Your task to perform on an android device: Show the shopping cart on walmart. Search for macbook pro on walmart, select the first entry, and add it to the cart. Image 0: 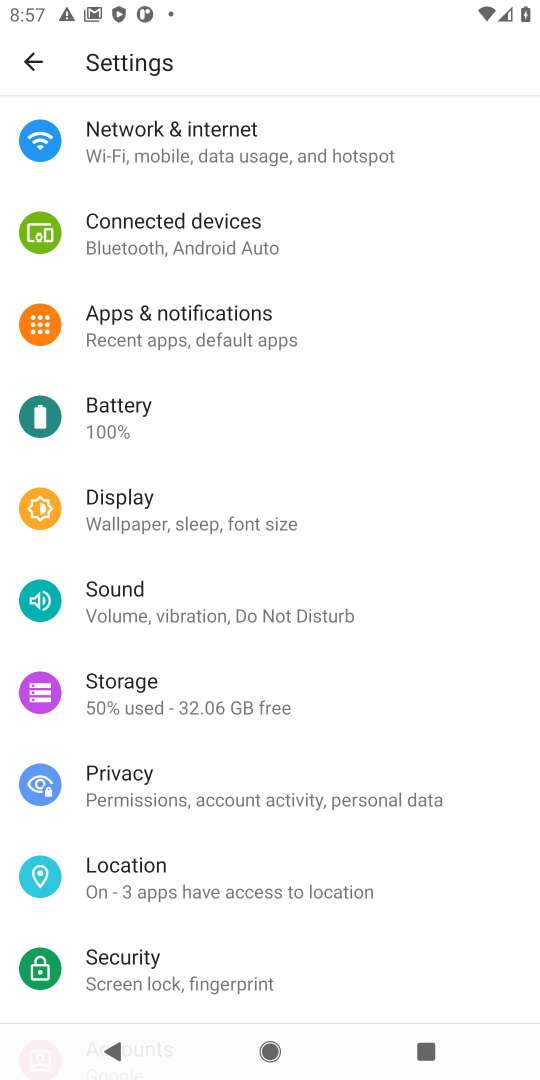
Step 0: press home button
Your task to perform on an android device: Show the shopping cart on walmart. Search for macbook pro on walmart, select the first entry, and add it to the cart. Image 1: 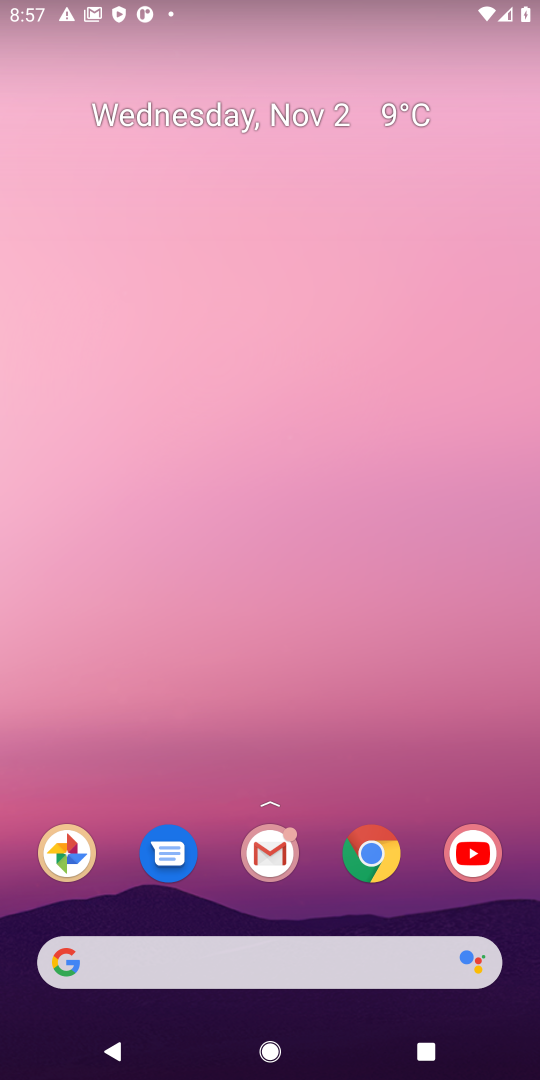
Step 1: click (365, 859)
Your task to perform on an android device: Show the shopping cart on walmart. Search for macbook pro on walmart, select the first entry, and add it to the cart. Image 2: 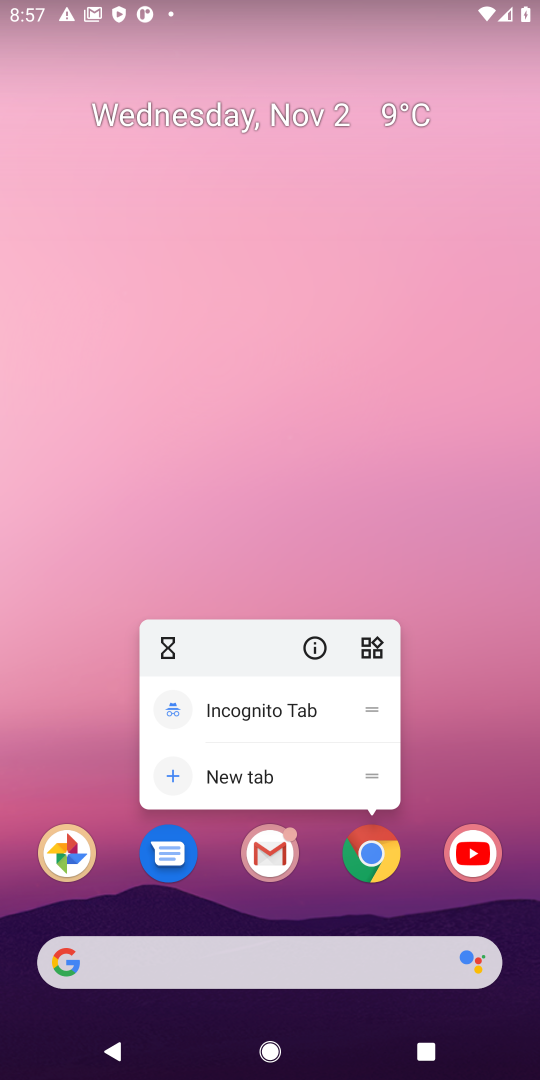
Step 2: click (363, 854)
Your task to perform on an android device: Show the shopping cart on walmart. Search for macbook pro on walmart, select the first entry, and add it to the cart. Image 3: 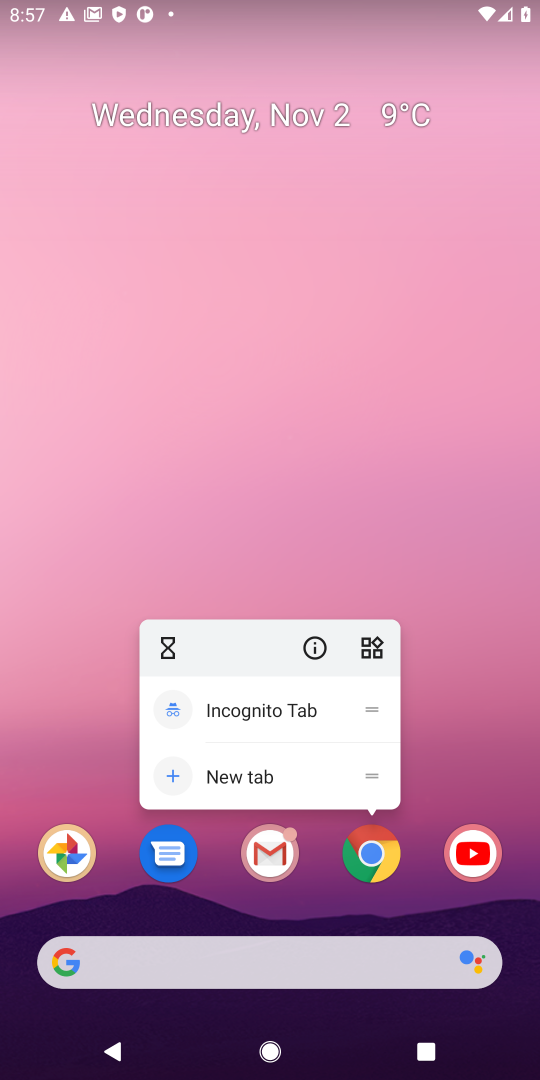
Step 3: click (389, 855)
Your task to perform on an android device: Show the shopping cart on walmart. Search for macbook pro on walmart, select the first entry, and add it to the cart. Image 4: 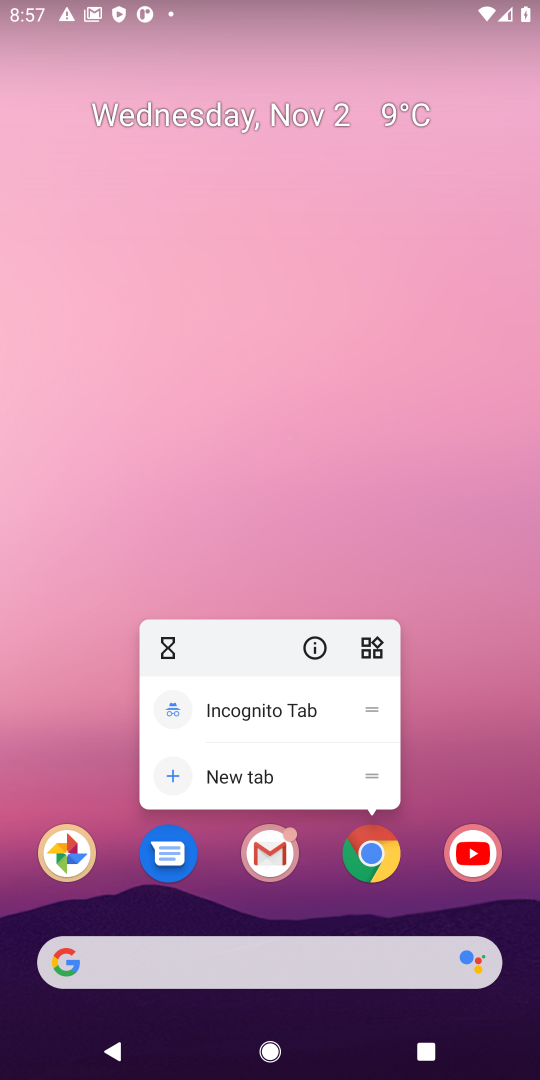
Step 4: click (367, 849)
Your task to perform on an android device: Show the shopping cart on walmart. Search for macbook pro on walmart, select the first entry, and add it to the cart. Image 5: 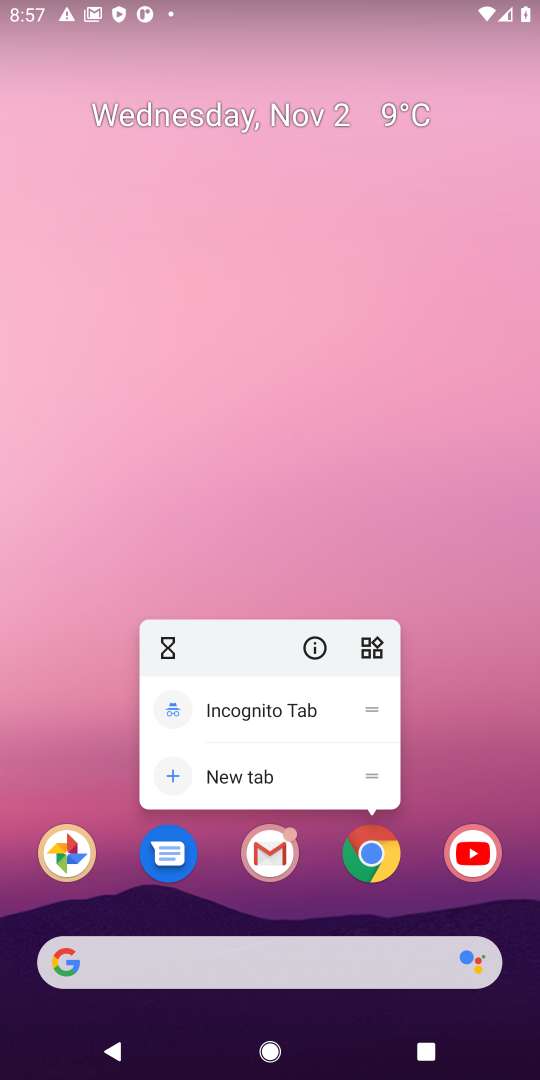
Step 5: click (367, 852)
Your task to perform on an android device: Show the shopping cart on walmart. Search for macbook pro on walmart, select the first entry, and add it to the cart. Image 6: 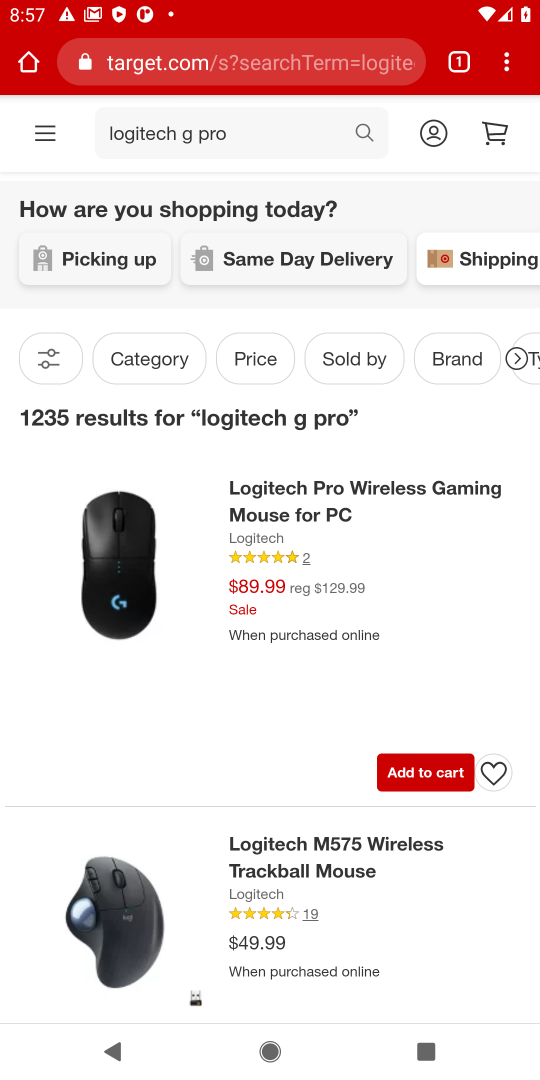
Step 6: click (227, 62)
Your task to perform on an android device: Show the shopping cart on walmart. Search for macbook pro on walmart, select the first entry, and add it to the cart. Image 7: 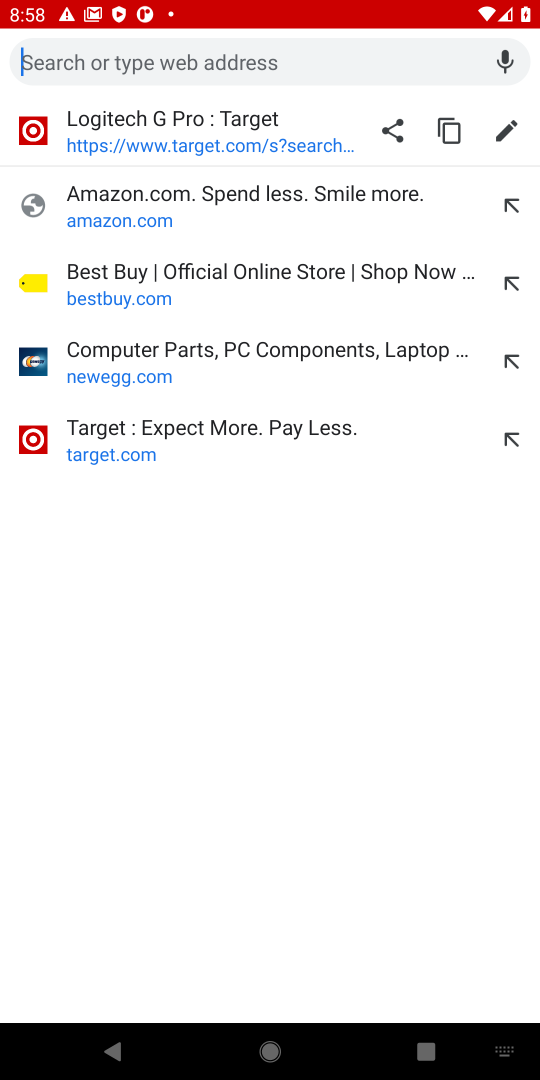
Step 7: type "walmart"
Your task to perform on an android device: Show the shopping cart on walmart. Search for macbook pro on walmart, select the first entry, and add it to the cart. Image 8: 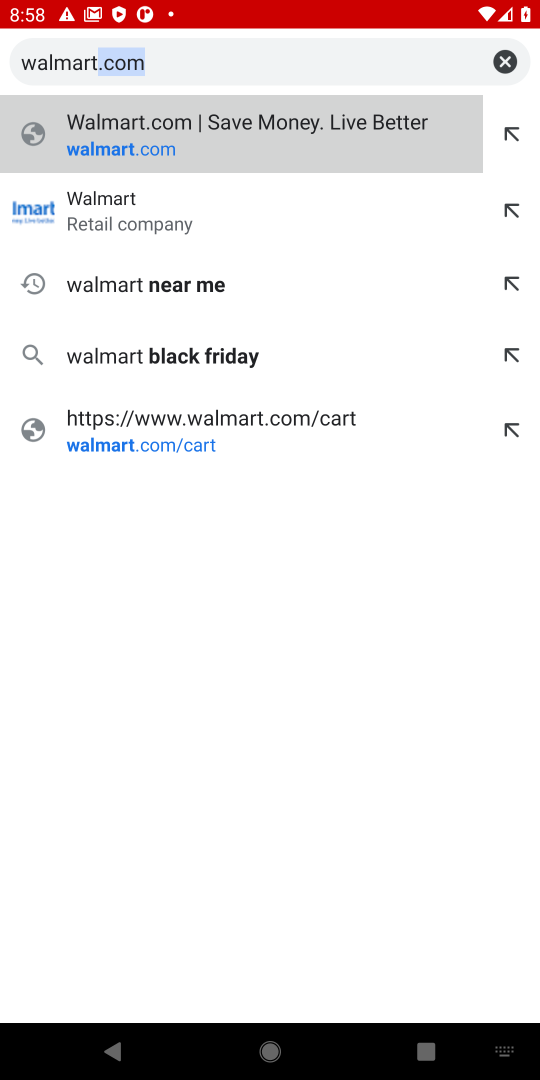
Step 8: press enter
Your task to perform on an android device: Show the shopping cart on walmart. Search for macbook pro on walmart, select the first entry, and add it to the cart. Image 9: 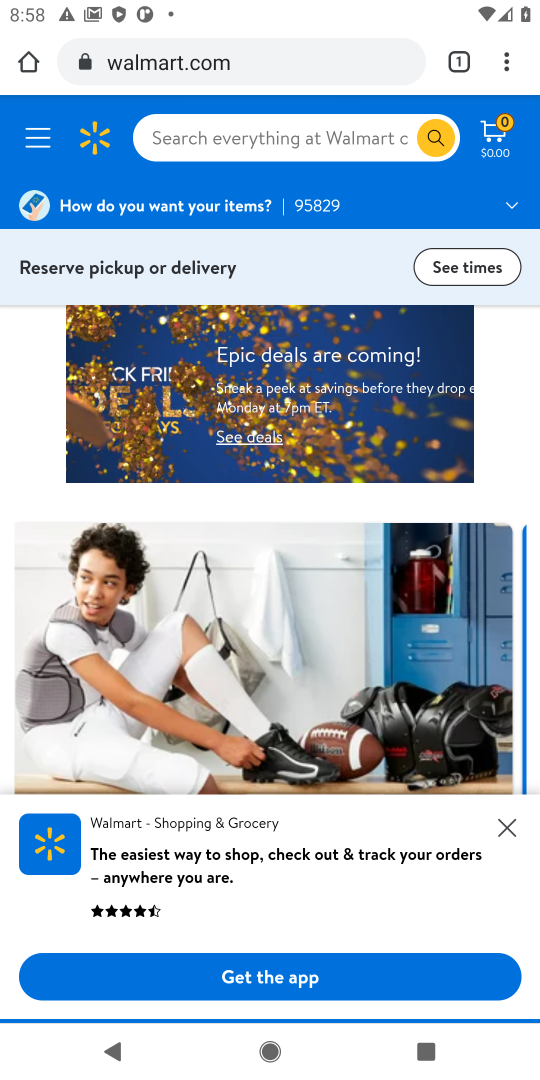
Step 9: click (240, 138)
Your task to perform on an android device: Show the shopping cart on walmart. Search for macbook pro on walmart, select the first entry, and add it to the cart. Image 10: 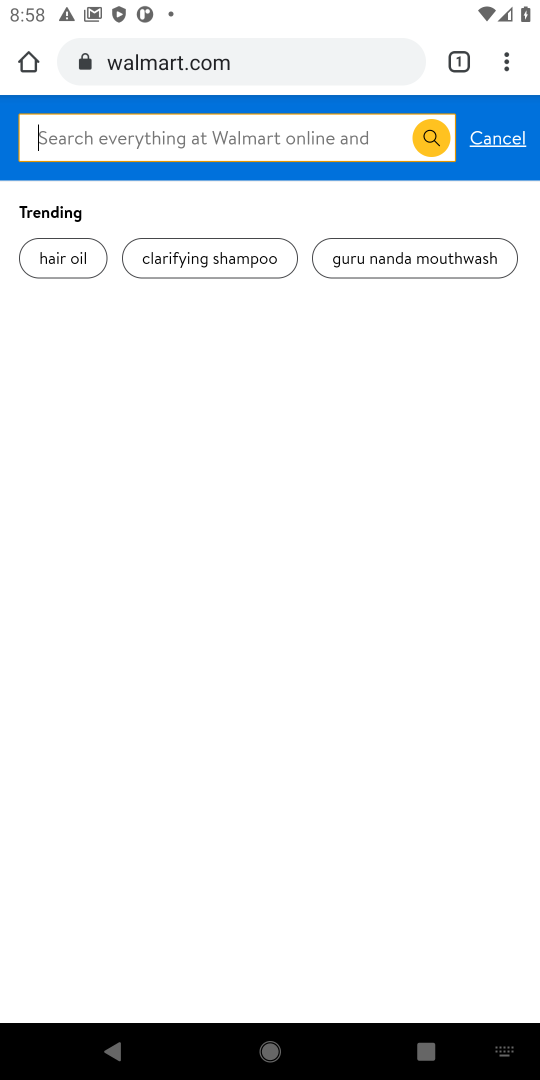
Step 10: type "macbook pro"
Your task to perform on an android device: Show the shopping cart on walmart. Search for macbook pro on walmart, select the first entry, and add it to the cart. Image 11: 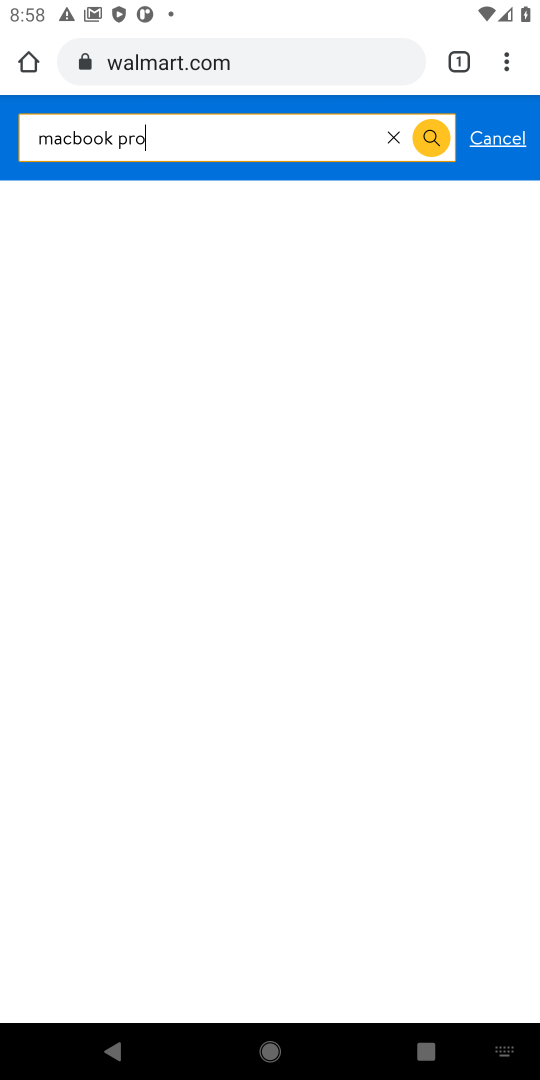
Step 11: press enter
Your task to perform on an android device: Show the shopping cart on walmart. Search for macbook pro on walmart, select the first entry, and add it to the cart. Image 12: 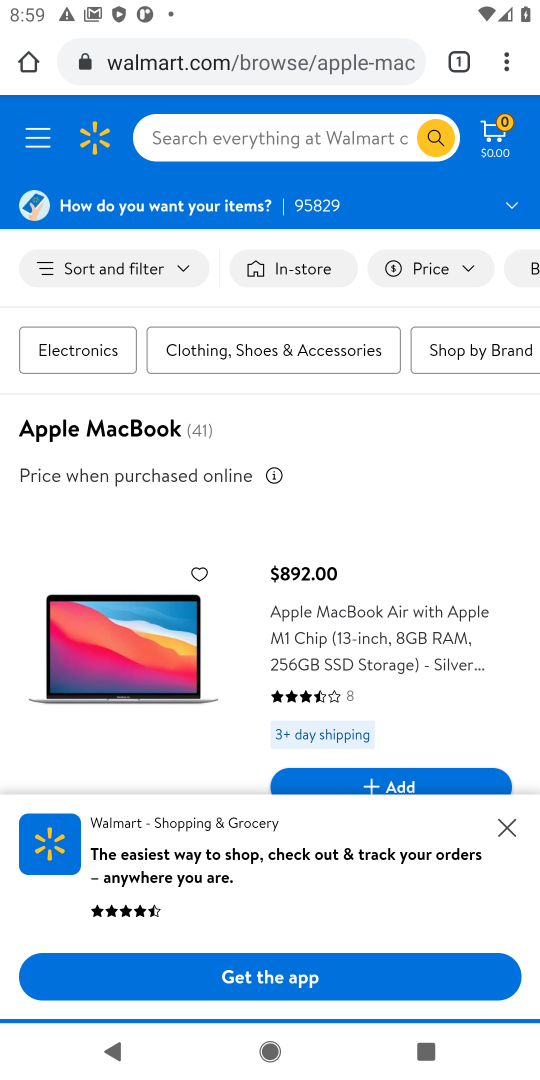
Step 12: drag from (265, 702) to (330, 667)
Your task to perform on an android device: Show the shopping cart on walmart. Search for macbook pro on walmart, select the first entry, and add it to the cart. Image 13: 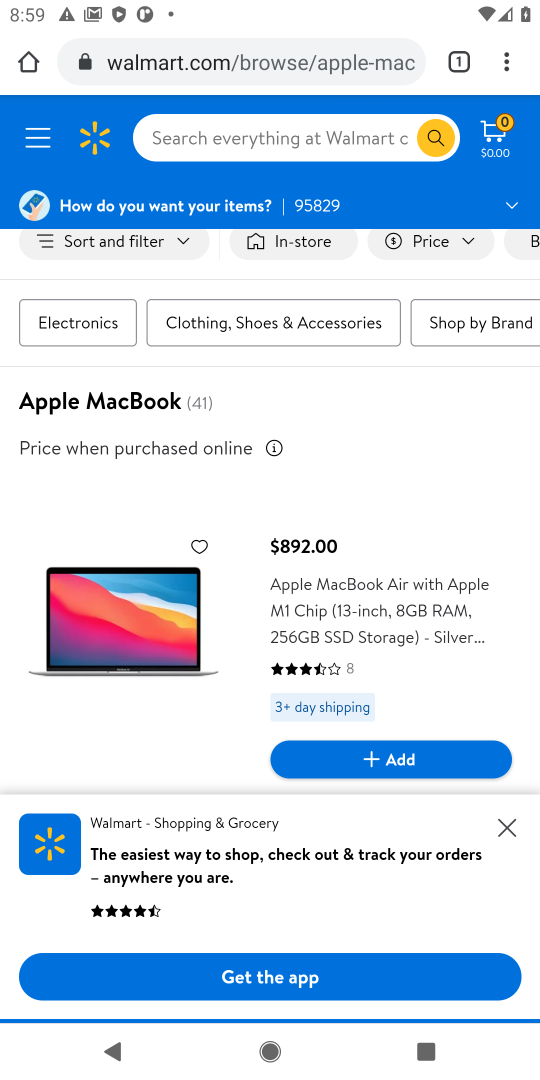
Step 13: click (240, 138)
Your task to perform on an android device: Show the shopping cart on walmart. Search for macbook pro on walmart, select the first entry, and add it to the cart. Image 14: 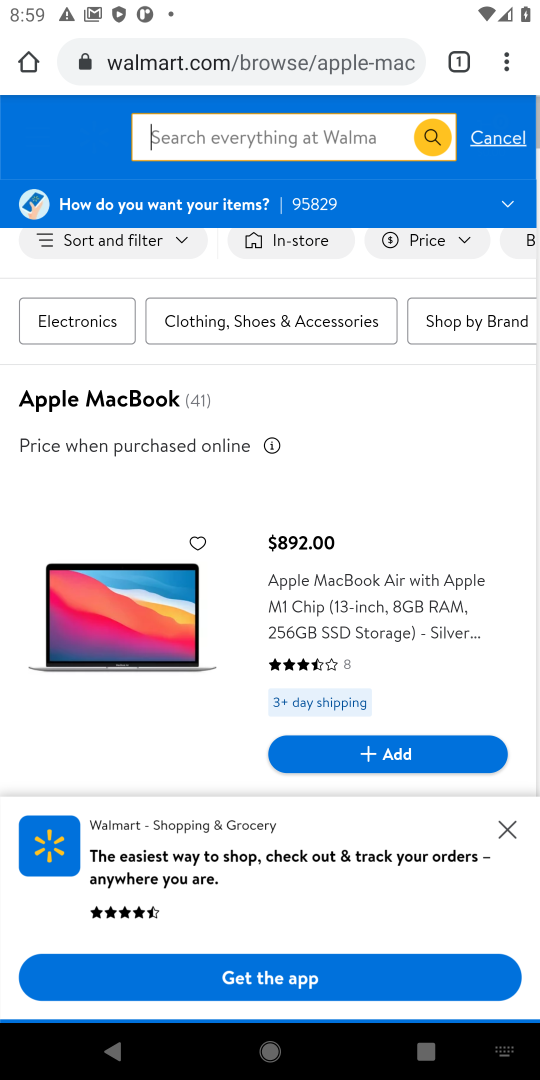
Step 14: click (223, 137)
Your task to perform on an android device: Show the shopping cart on walmart. Search for macbook pro on walmart, select the first entry, and add it to the cart. Image 15: 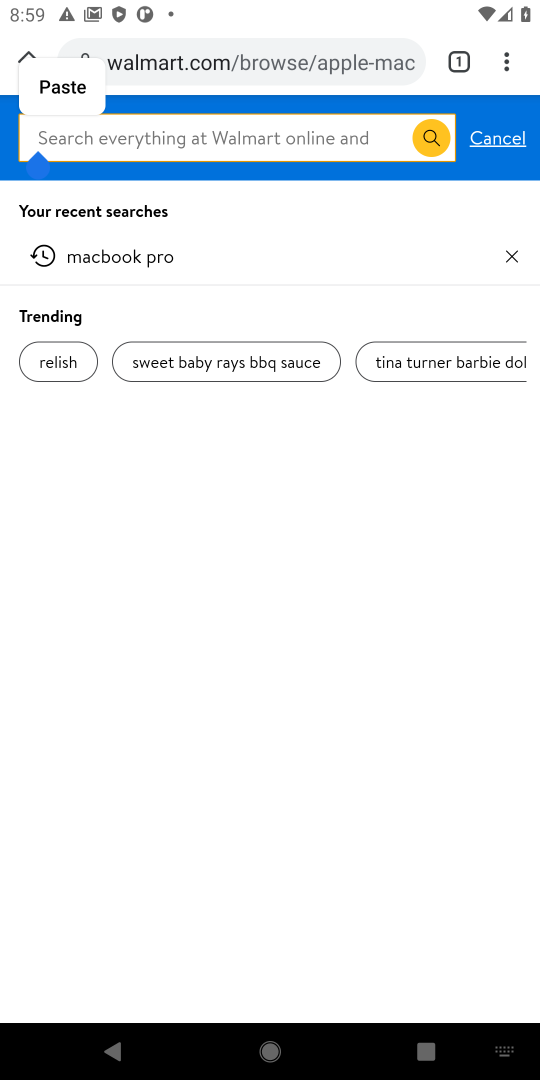
Step 15: type "macbook pro"
Your task to perform on an android device: Show the shopping cart on walmart. Search for macbook pro on walmart, select the first entry, and add it to the cart. Image 16: 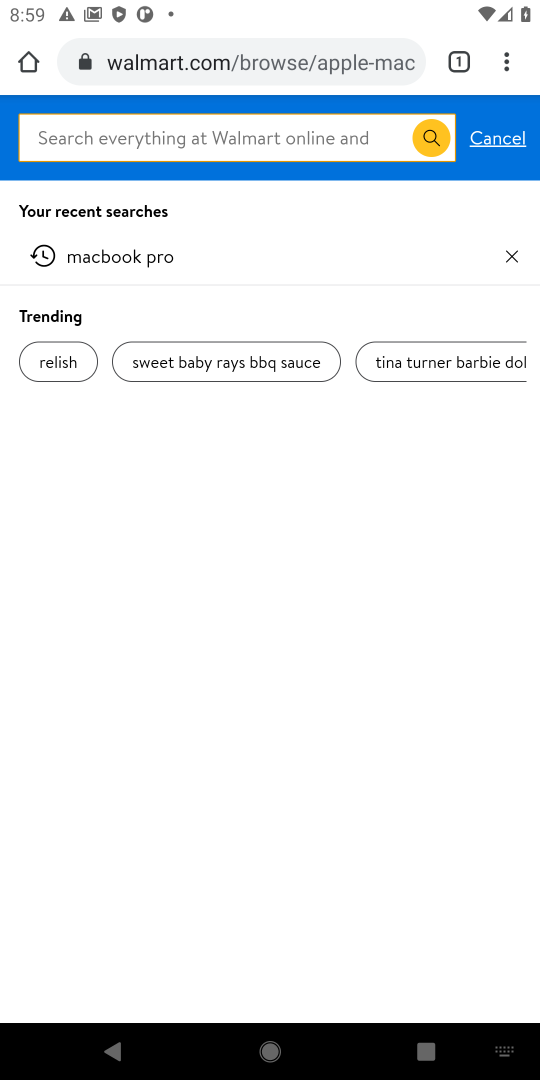
Step 16: press enter
Your task to perform on an android device: Show the shopping cart on walmart. Search for macbook pro on walmart, select the first entry, and add it to the cart. Image 17: 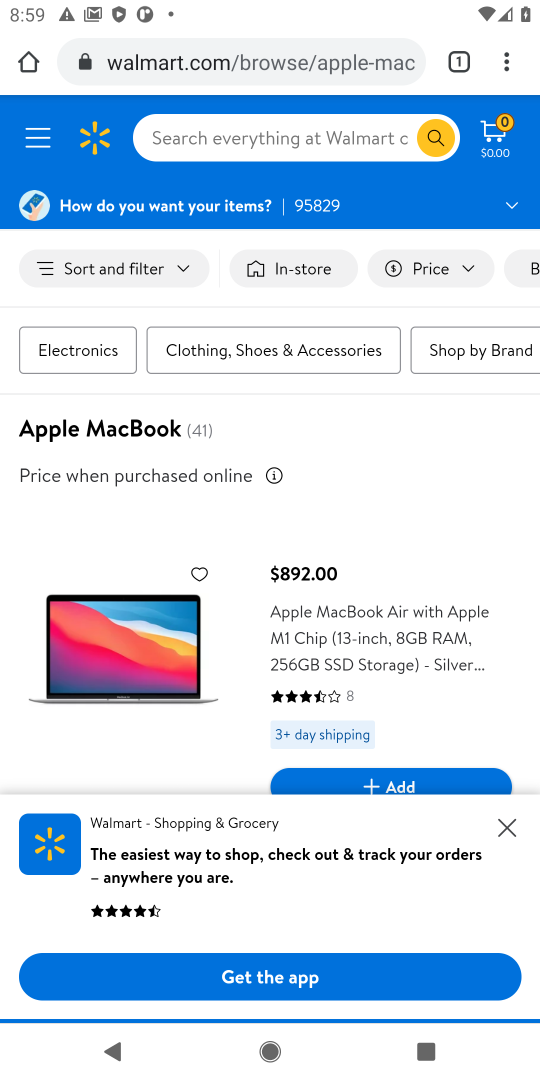
Step 17: click (507, 811)
Your task to perform on an android device: Show the shopping cart on walmart. Search for macbook pro on walmart, select the first entry, and add it to the cart. Image 18: 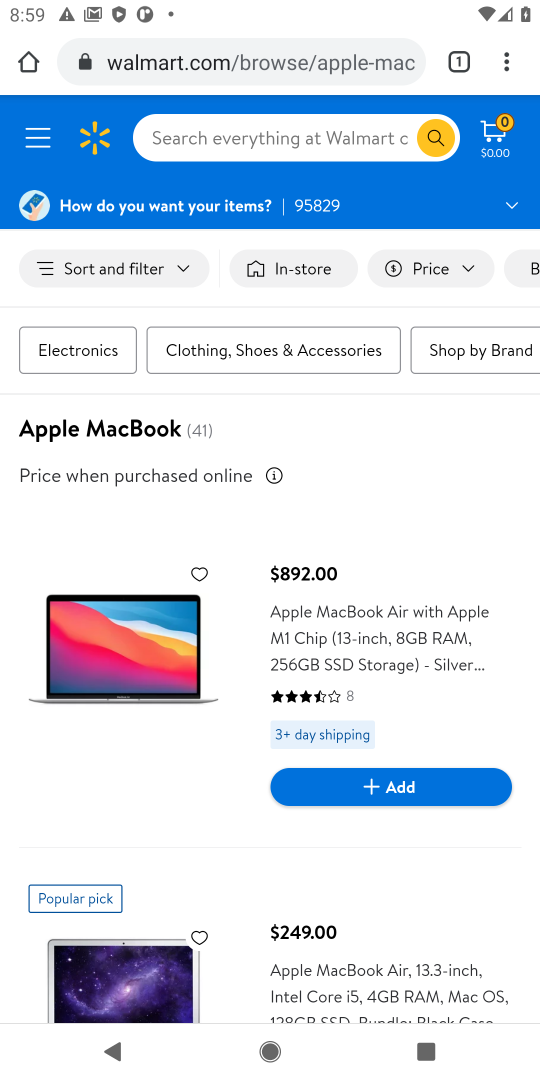
Step 18: task complete